Your task to perform on an android device: Open ESPN.com Image 0: 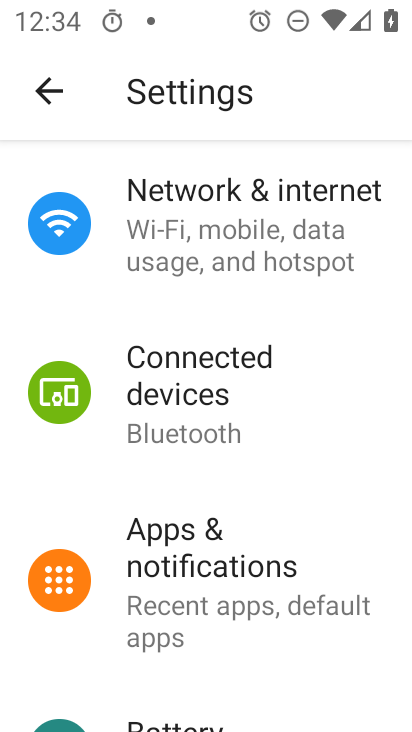
Step 0: press home button
Your task to perform on an android device: Open ESPN.com Image 1: 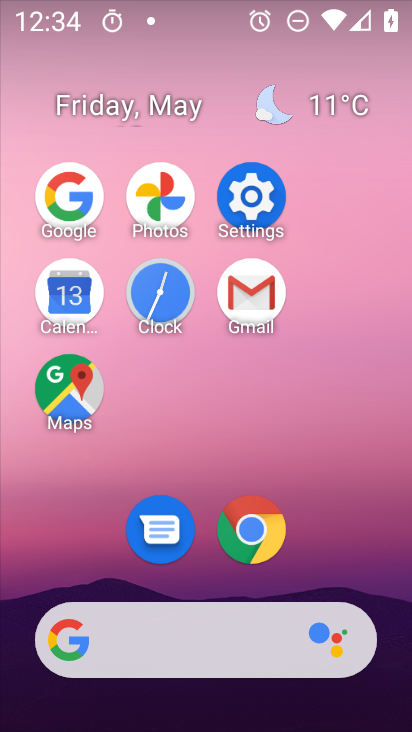
Step 1: click (241, 540)
Your task to perform on an android device: Open ESPN.com Image 2: 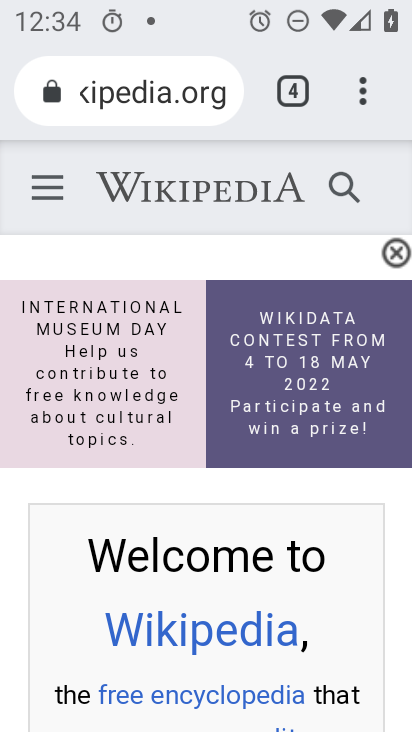
Step 2: click (273, 73)
Your task to perform on an android device: Open ESPN.com Image 3: 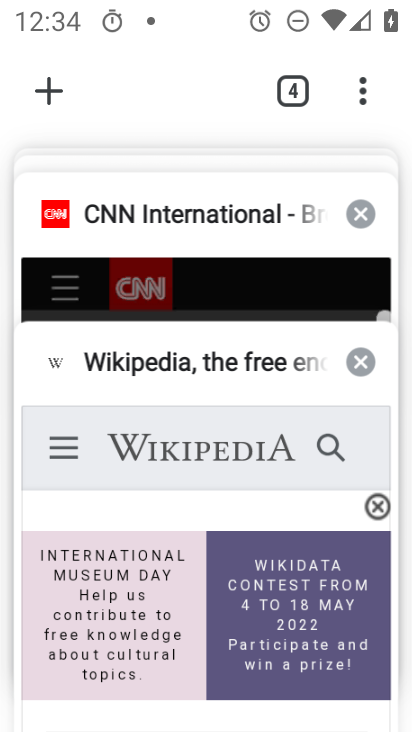
Step 3: click (42, 92)
Your task to perform on an android device: Open ESPN.com Image 4: 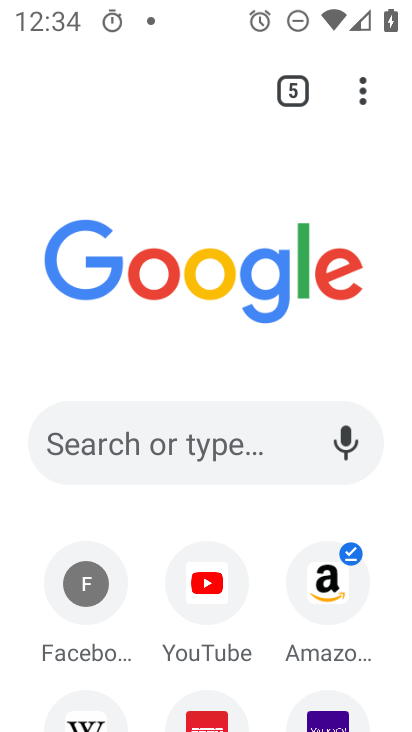
Step 4: click (208, 709)
Your task to perform on an android device: Open ESPN.com Image 5: 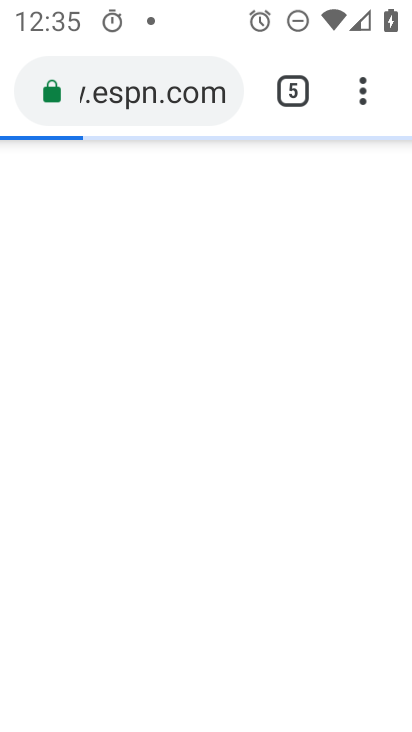
Step 5: task complete